Your task to perform on an android device: Go to settings Image 0: 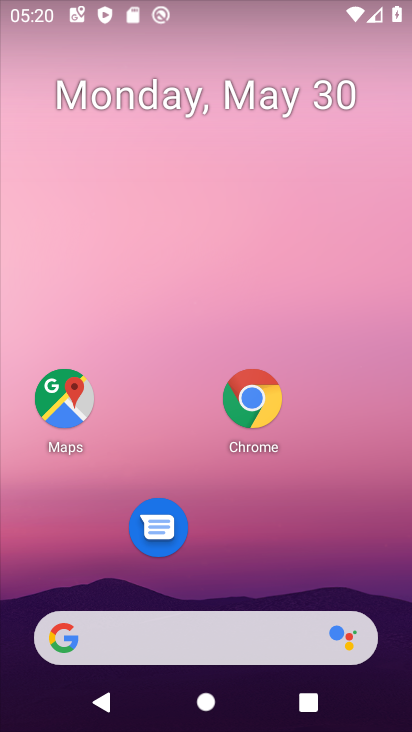
Step 0: drag from (239, 723) to (233, 0)
Your task to perform on an android device: Go to settings Image 1: 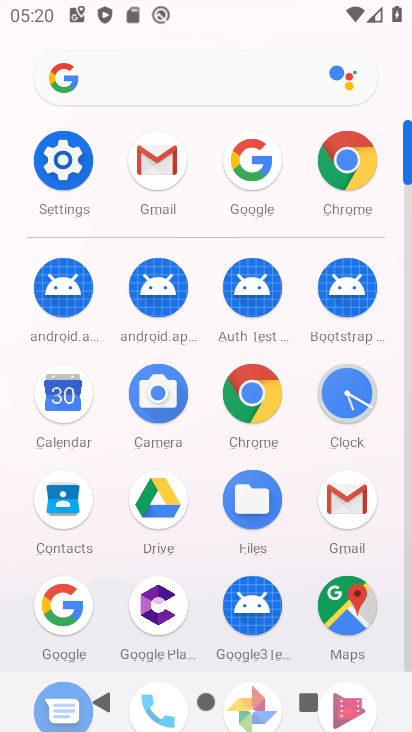
Step 1: click (58, 163)
Your task to perform on an android device: Go to settings Image 2: 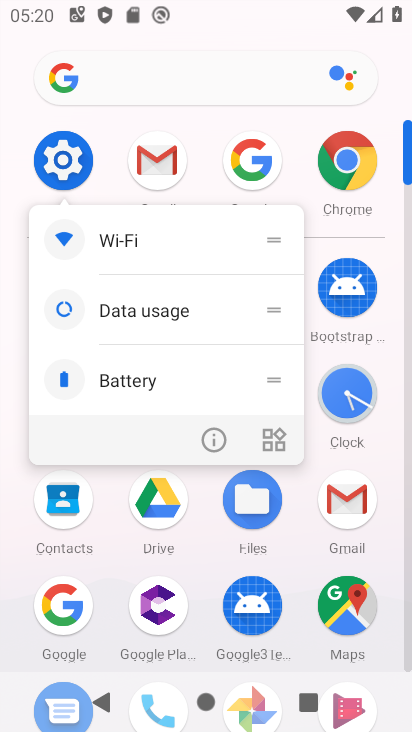
Step 2: click (59, 164)
Your task to perform on an android device: Go to settings Image 3: 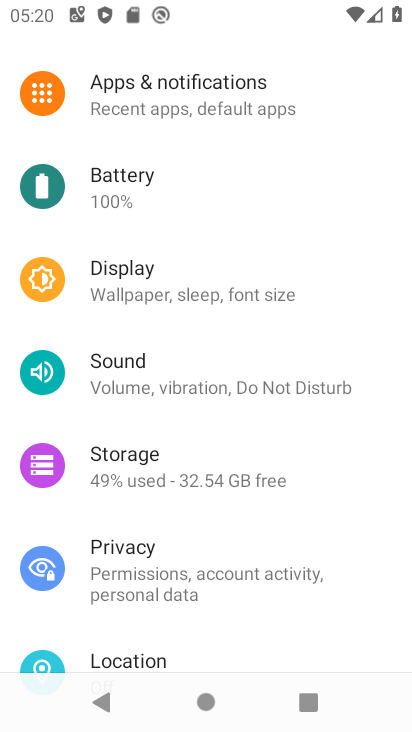
Step 3: task complete